Your task to perform on an android device: turn off translation in the chrome app Image 0: 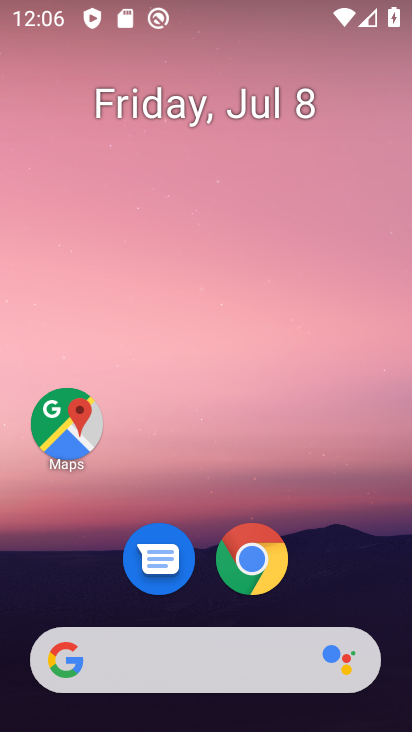
Step 0: drag from (225, 618) to (202, 26)
Your task to perform on an android device: turn off translation in the chrome app Image 1: 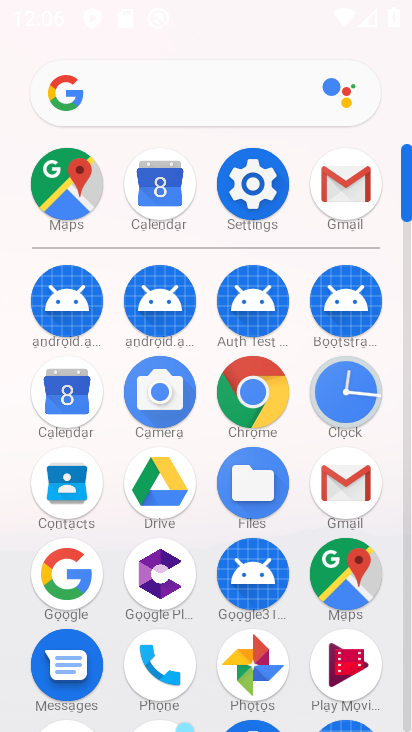
Step 1: click (247, 399)
Your task to perform on an android device: turn off translation in the chrome app Image 2: 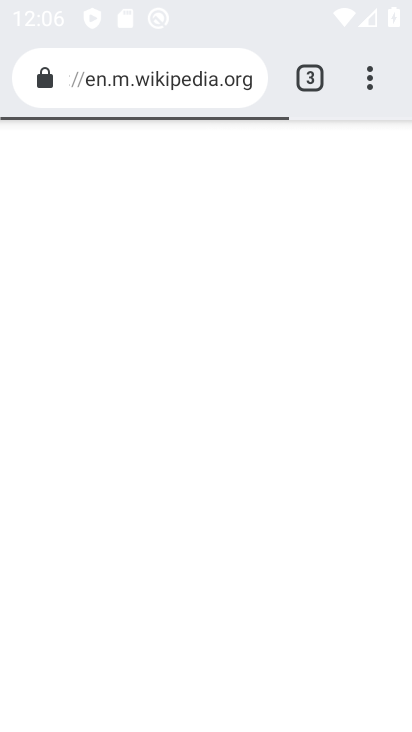
Step 2: click (373, 81)
Your task to perform on an android device: turn off translation in the chrome app Image 3: 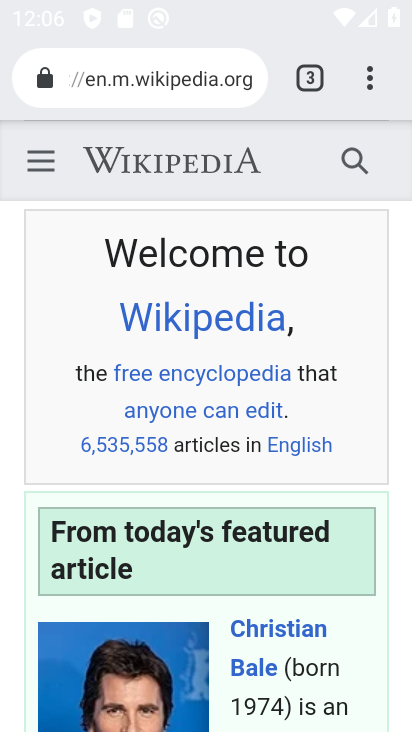
Step 3: drag from (373, 81) to (129, 619)
Your task to perform on an android device: turn off translation in the chrome app Image 4: 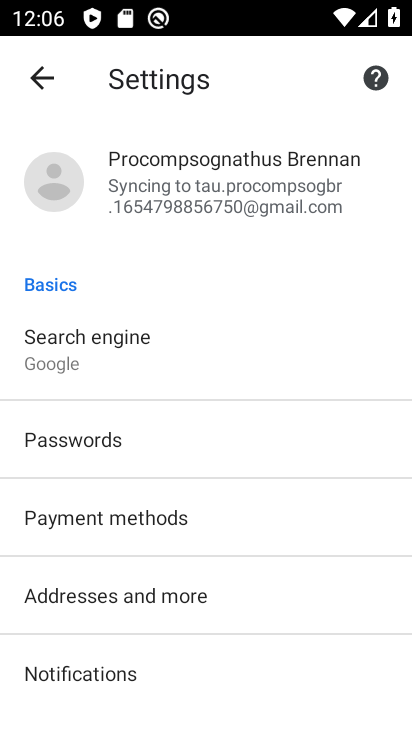
Step 4: drag from (120, 522) to (78, 241)
Your task to perform on an android device: turn off translation in the chrome app Image 5: 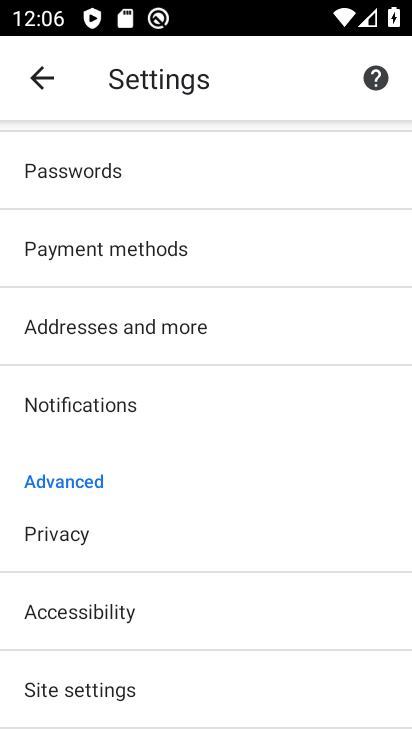
Step 5: drag from (137, 650) to (138, 325)
Your task to perform on an android device: turn off translation in the chrome app Image 6: 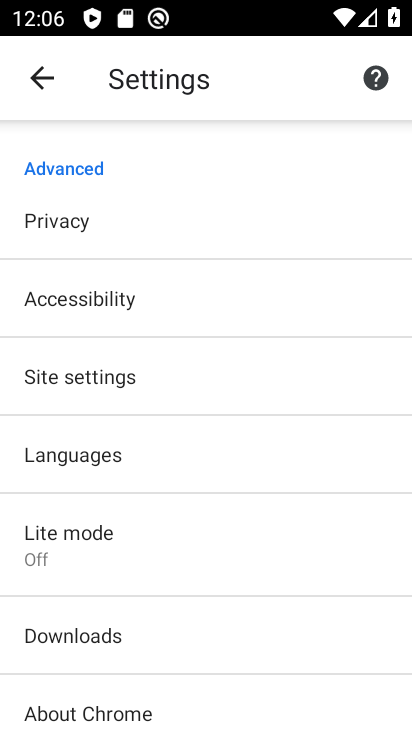
Step 6: click (136, 472)
Your task to perform on an android device: turn off translation in the chrome app Image 7: 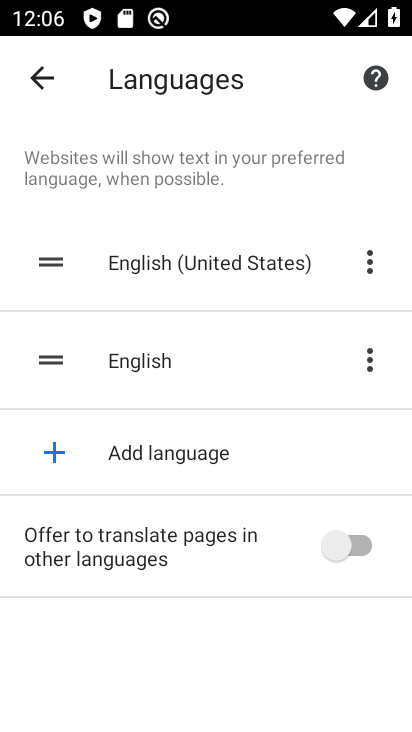
Step 7: task complete